Your task to perform on an android device: allow cookies in the chrome app Image 0: 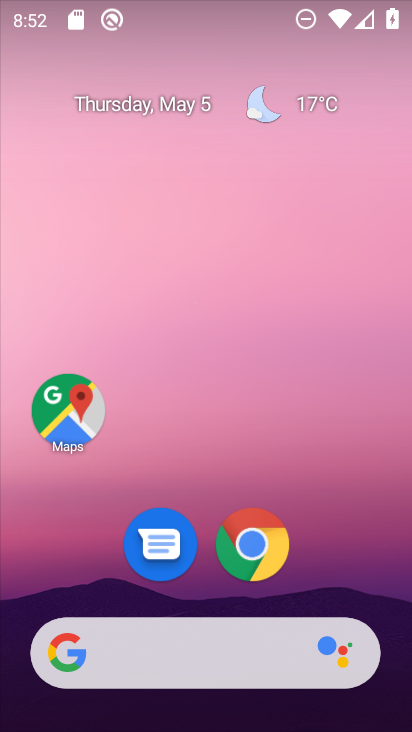
Step 0: drag from (386, 644) to (274, 112)
Your task to perform on an android device: allow cookies in the chrome app Image 1: 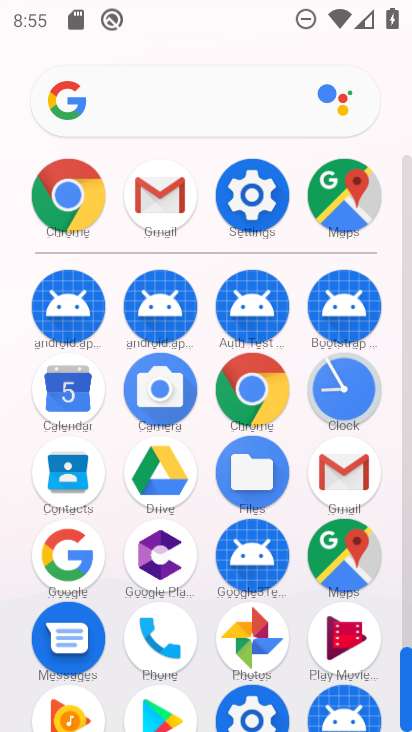
Step 1: click (266, 381)
Your task to perform on an android device: allow cookies in the chrome app Image 2: 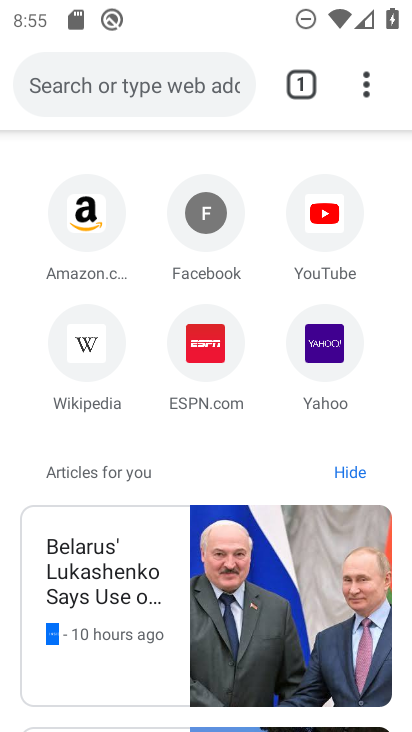
Step 2: click (360, 78)
Your task to perform on an android device: allow cookies in the chrome app Image 3: 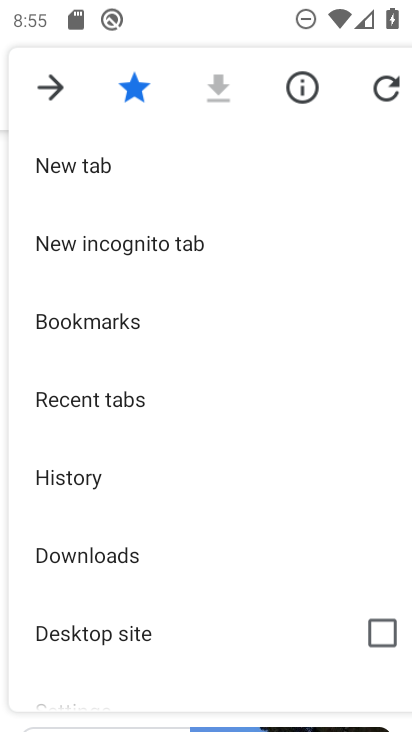
Step 3: drag from (123, 580) to (147, 240)
Your task to perform on an android device: allow cookies in the chrome app Image 4: 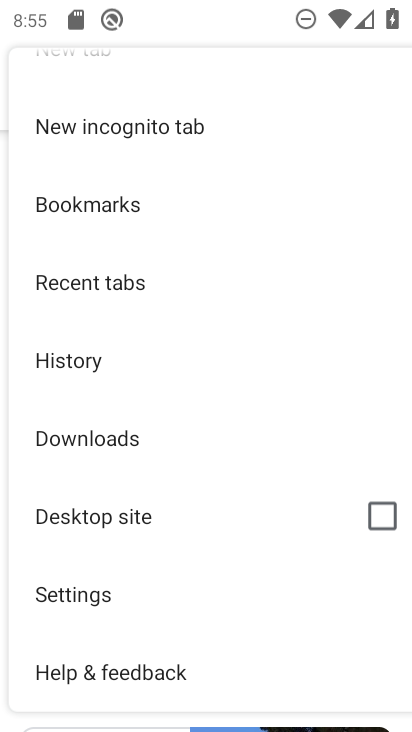
Step 4: click (178, 583)
Your task to perform on an android device: allow cookies in the chrome app Image 5: 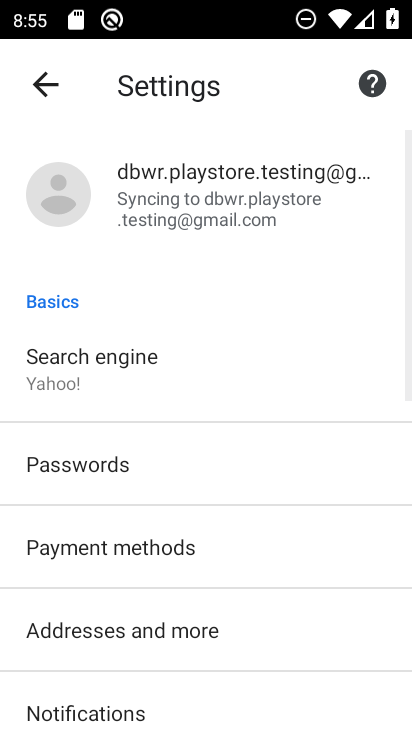
Step 5: drag from (191, 654) to (192, 261)
Your task to perform on an android device: allow cookies in the chrome app Image 6: 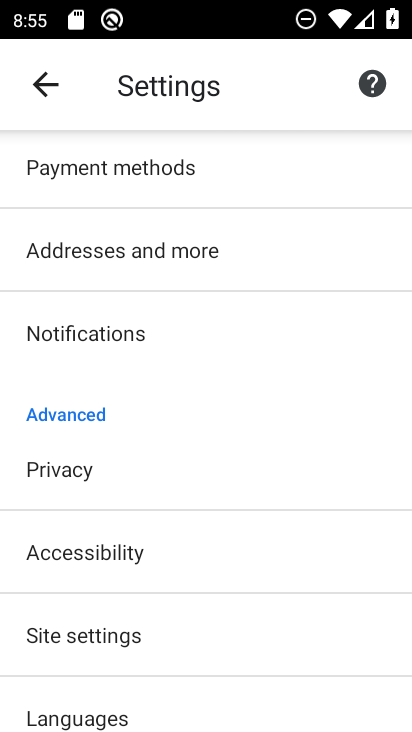
Step 6: click (161, 631)
Your task to perform on an android device: allow cookies in the chrome app Image 7: 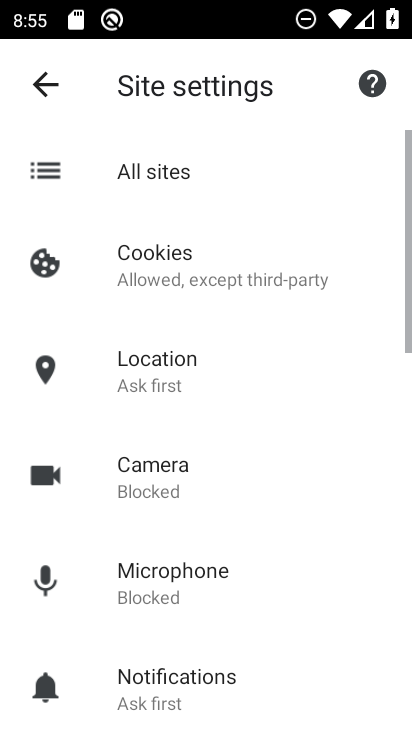
Step 7: click (205, 248)
Your task to perform on an android device: allow cookies in the chrome app Image 8: 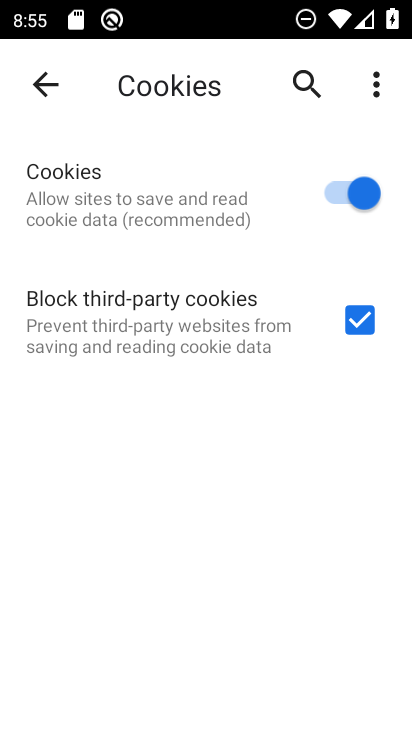
Step 8: task complete